Your task to perform on an android device: toggle pop-ups in chrome Image 0: 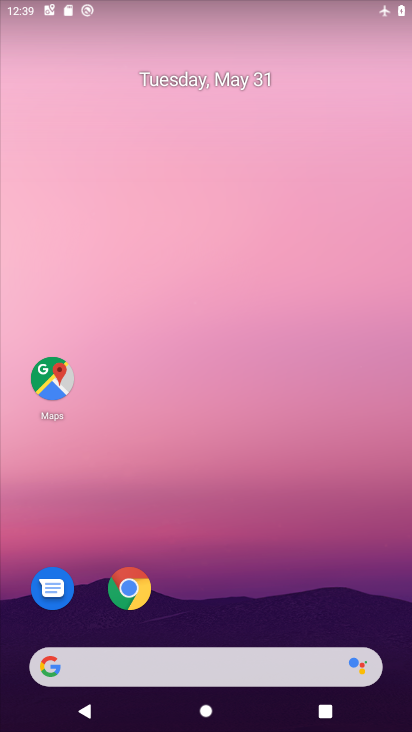
Step 0: drag from (382, 651) to (200, 0)
Your task to perform on an android device: toggle pop-ups in chrome Image 1: 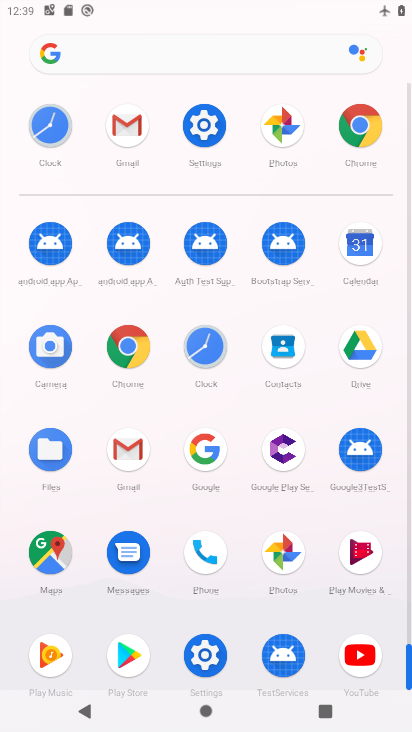
Step 1: click (137, 339)
Your task to perform on an android device: toggle pop-ups in chrome Image 2: 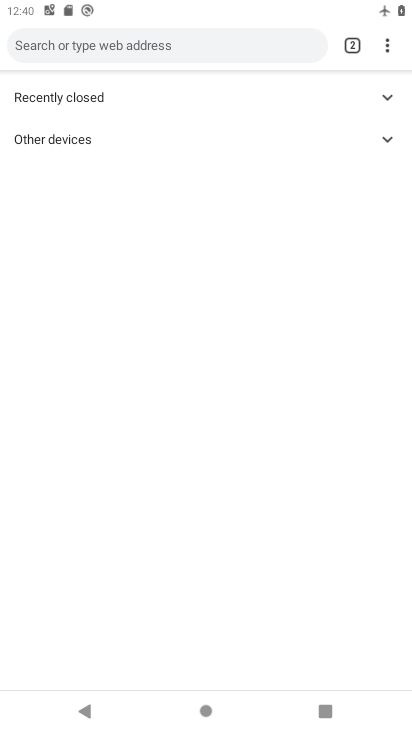
Step 2: drag from (381, 44) to (214, 381)
Your task to perform on an android device: toggle pop-ups in chrome Image 3: 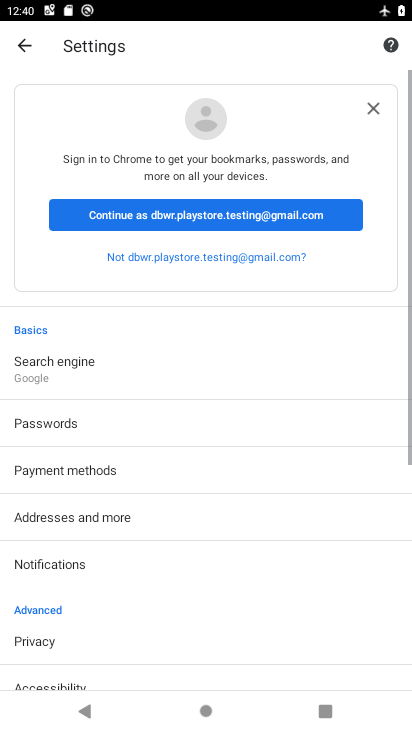
Step 3: drag from (191, 631) to (199, 122)
Your task to perform on an android device: toggle pop-ups in chrome Image 4: 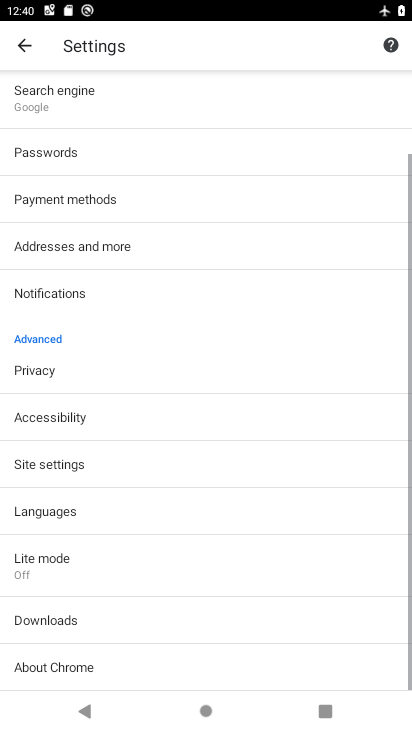
Step 4: click (104, 466)
Your task to perform on an android device: toggle pop-ups in chrome Image 5: 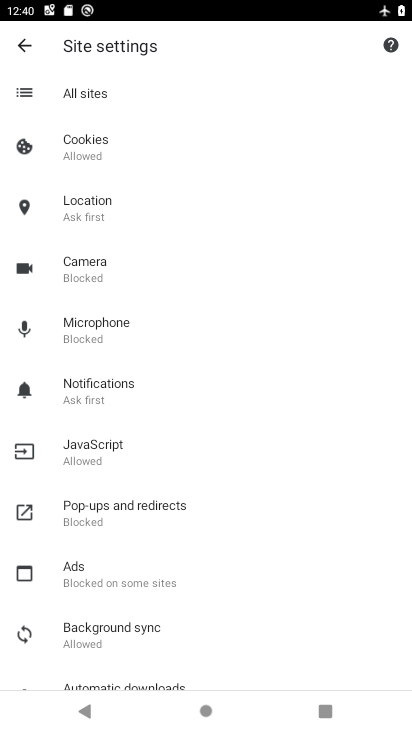
Step 5: click (176, 499)
Your task to perform on an android device: toggle pop-ups in chrome Image 6: 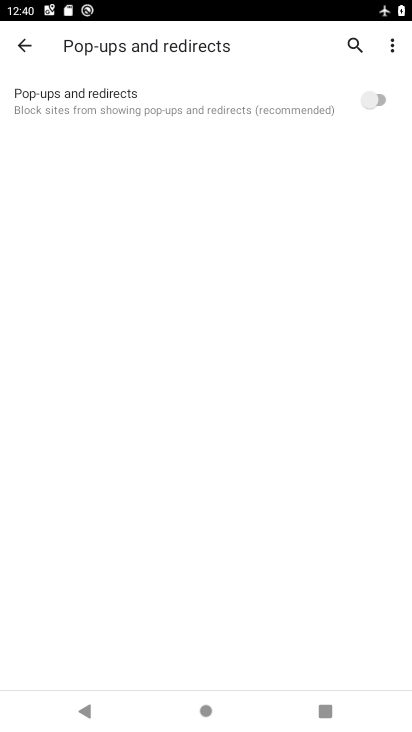
Step 6: click (377, 103)
Your task to perform on an android device: toggle pop-ups in chrome Image 7: 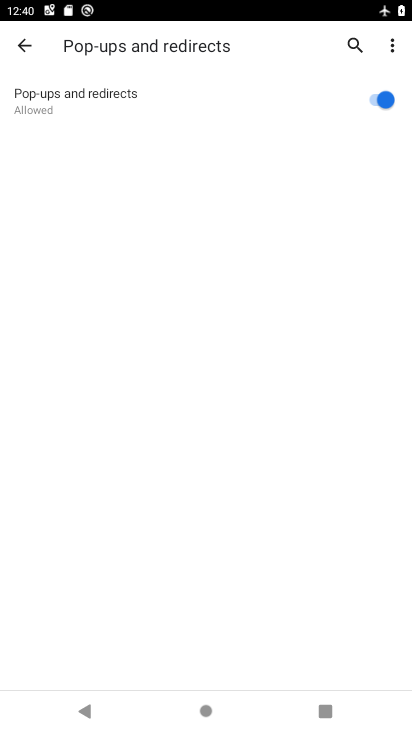
Step 7: task complete